Your task to perform on an android device: Open Google Chrome Image 0: 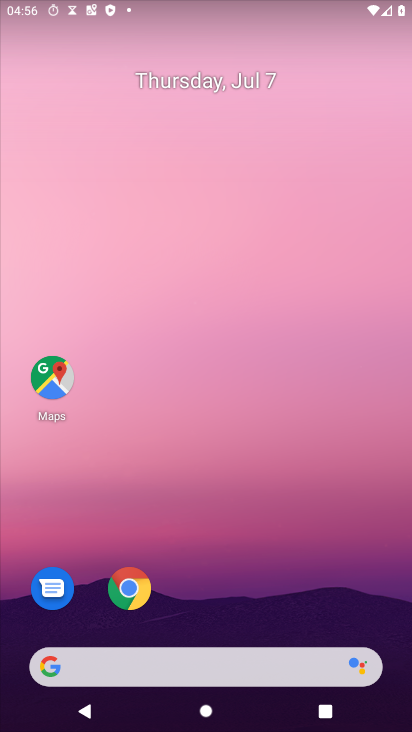
Step 0: press home button
Your task to perform on an android device: Open Google Chrome Image 1: 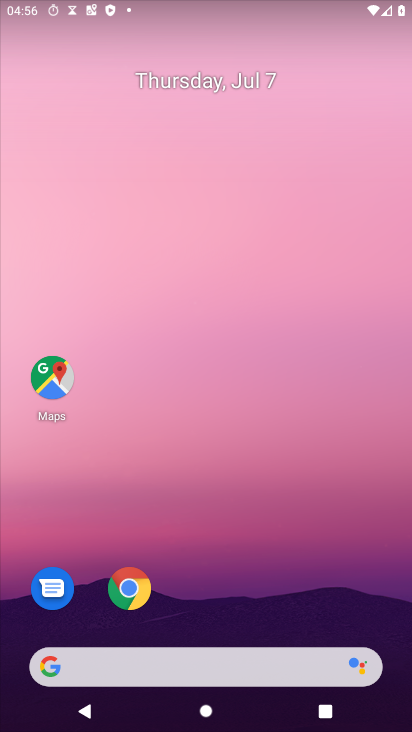
Step 1: drag from (208, 605) to (155, 179)
Your task to perform on an android device: Open Google Chrome Image 2: 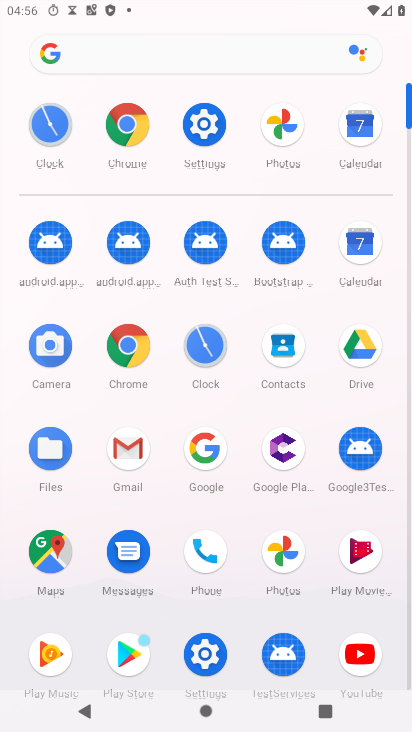
Step 2: click (127, 124)
Your task to perform on an android device: Open Google Chrome Image 3: 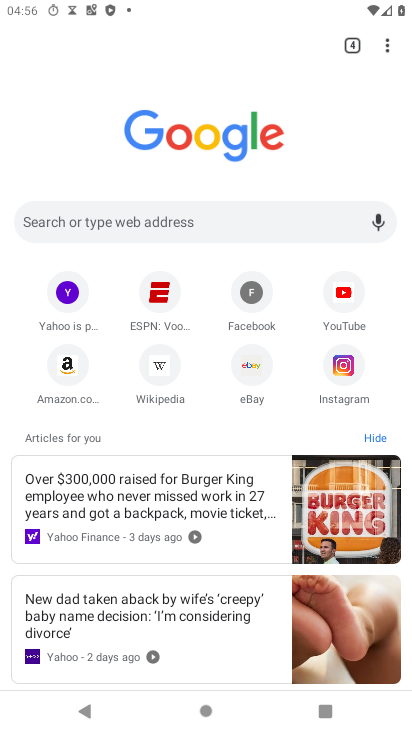
Step 3: task complete